Your task to perform on an android device: show emergency info Image 0: 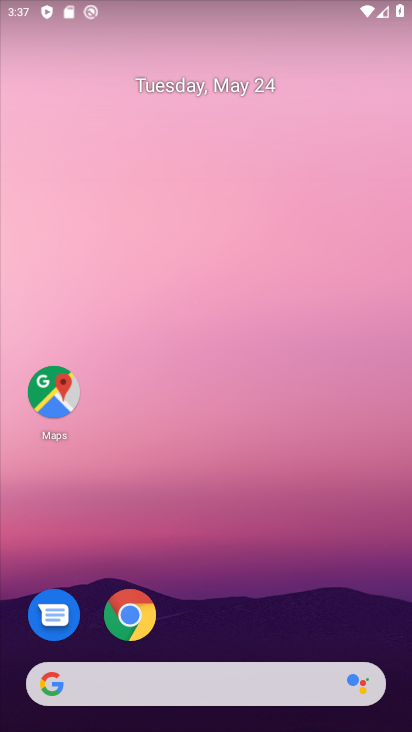
Step 0: drag from (192, 604) to (330, 84)
Your task to perform on an android device: show emergency info Image 1: 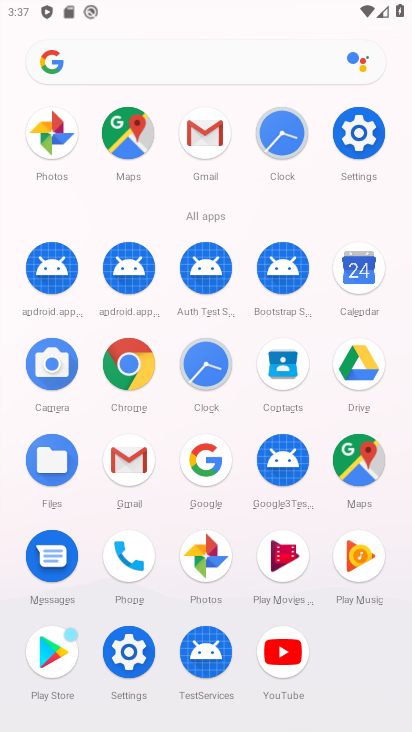
Step 1: click (134, 657)
Your task to perform on an android device: show emergency info Image 2: 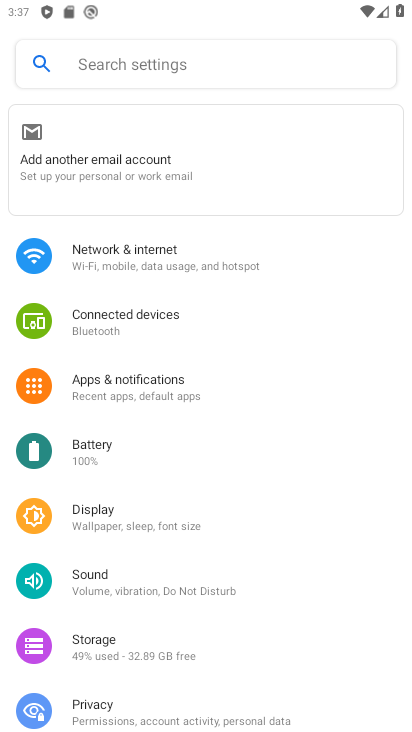
Step 2: drag from (229, 692) to (386, 146)
Your task to perform on an android device: show emergency info Image 3: 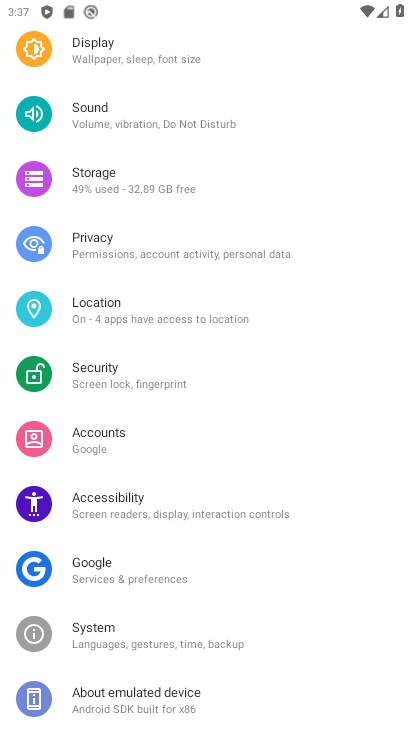
Step 3: drag from (140, 695) to (277, 273)
Your task to perform on an android device: show emergency info Image 4: 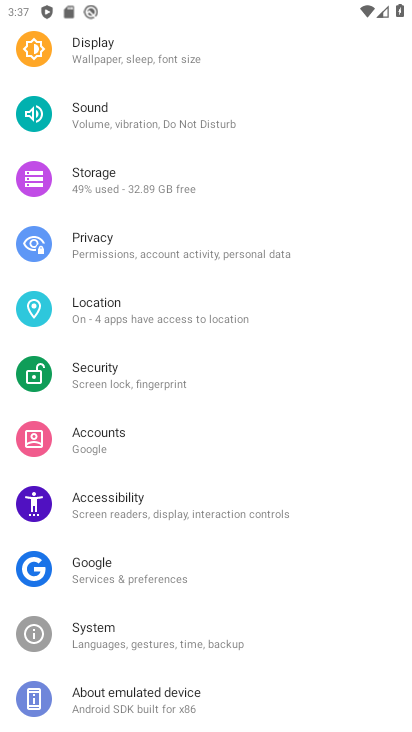
Step 4: click (149, 690)
Your task to perform on an android device: show emergency info Image 5: 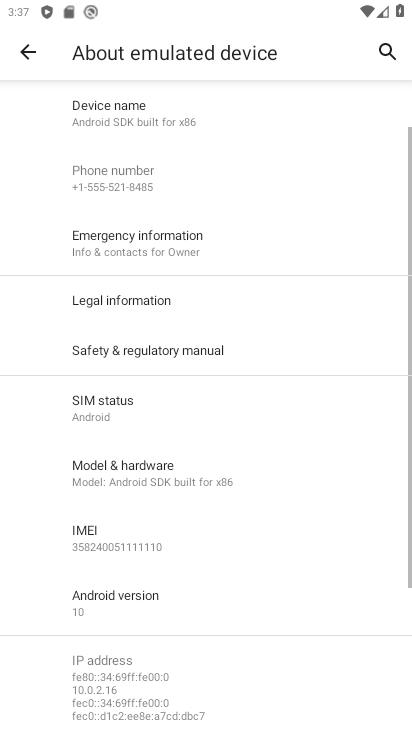
Step 5: click (181, 260)
Your task to perform on an android device: show emergency info Image 6: 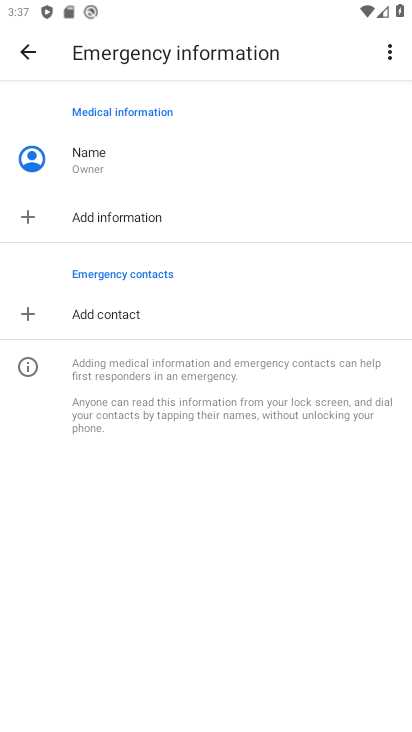
Step 6: task complete